Your task to perform on an android device: Go to privacy settings Image 0: 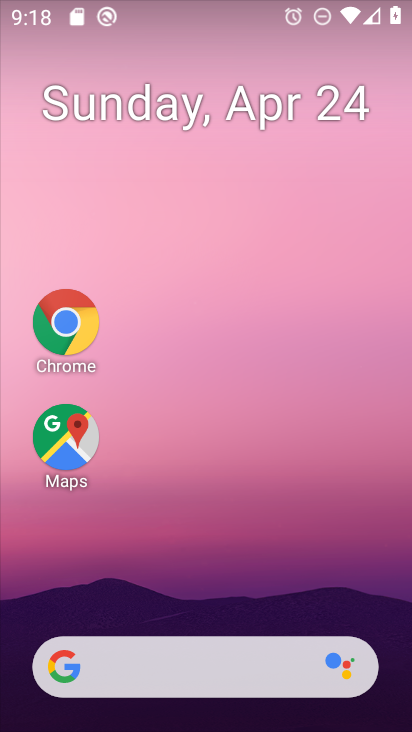
Step 0: drag from (267, 592) to (158, 12)
Your task to perform on an android device: Go to privacy settings Image 1: 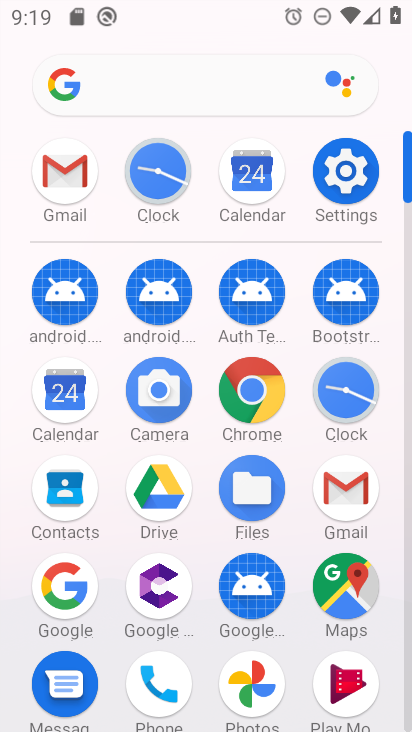
Step 1: click (348, 168)
Your task to perform on an android device: Go to privacy settings Image 2: 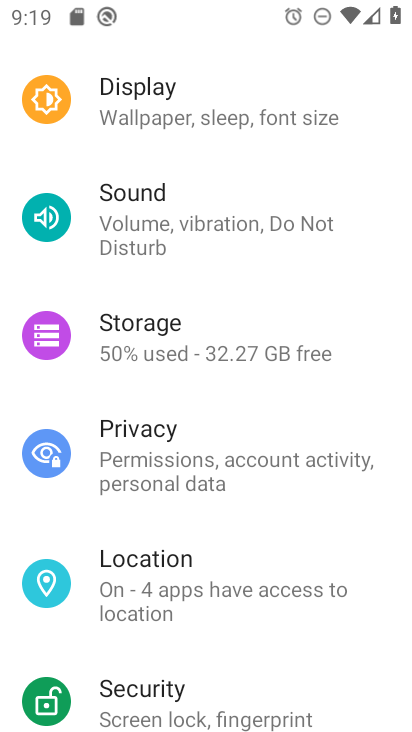
Step 2: click (145, 422)
Your task to perform on an android device: Go to privacy settings Image 3: 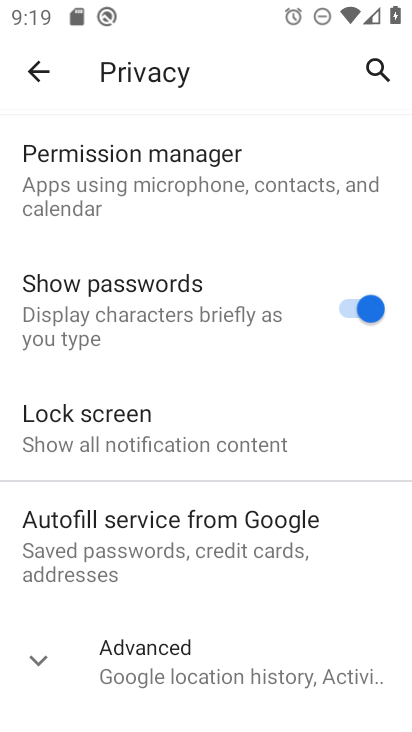
Step 3: task complete